Your task to perform on an android device: Clear the cart on newegg. Search for "razer deathadder" on newegg, select the first entry, and add it to the cart. Image 0: 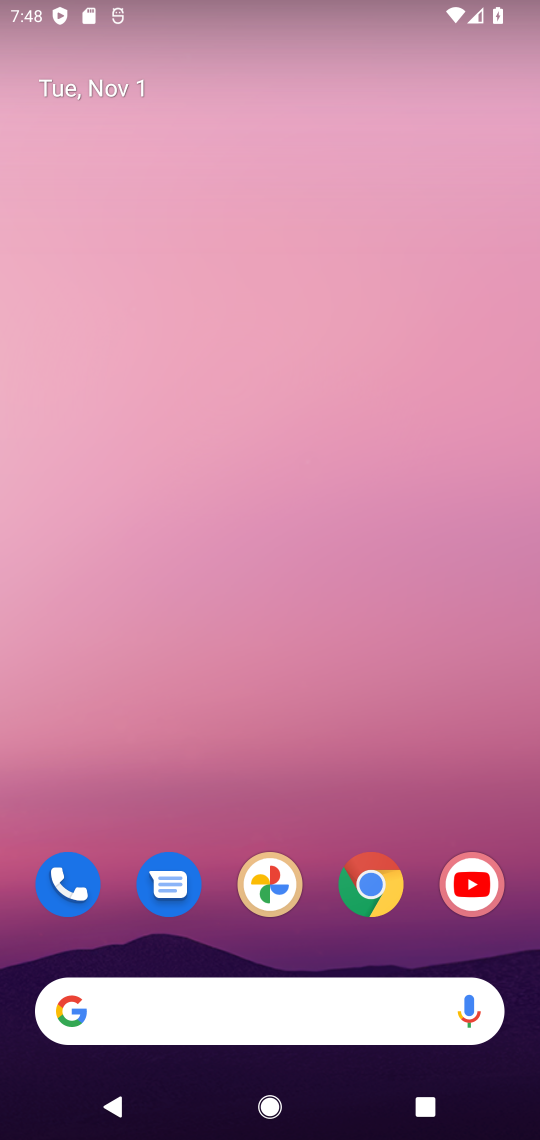
Step 0: click (373, 885)
Your task to perform on an android device: Clear the cart on newegg. Search for "razer deathadder" on newegg, select the first entry, and add it to the cart. Image 1: 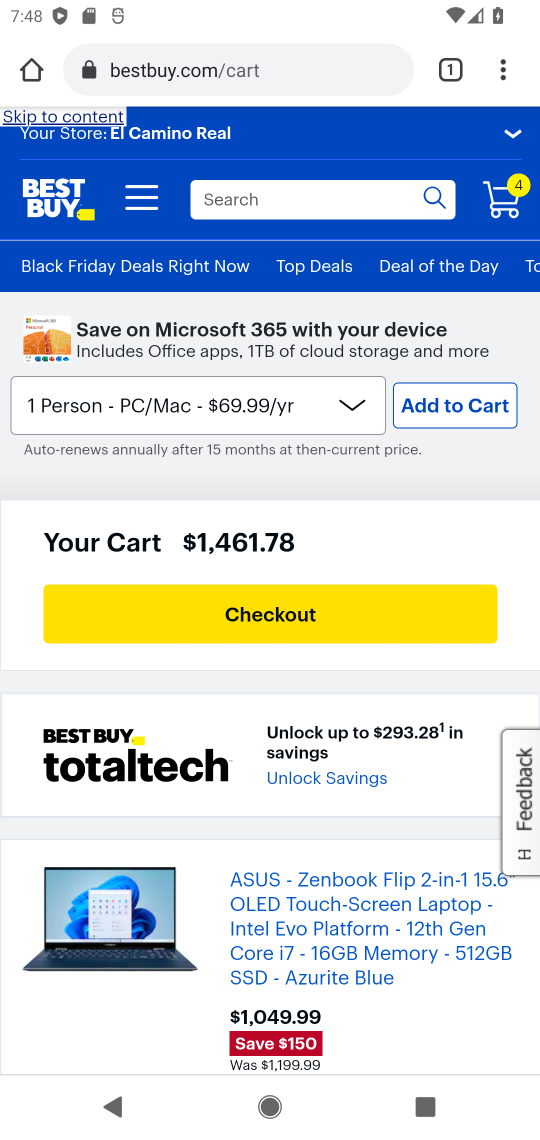
Step 1: click (293, 80)
Your task to perform on an android device: Clear the cart on newegg. Search for "razer deathadder" on newegg, select the first entry, and add it to the cart. Image 2: 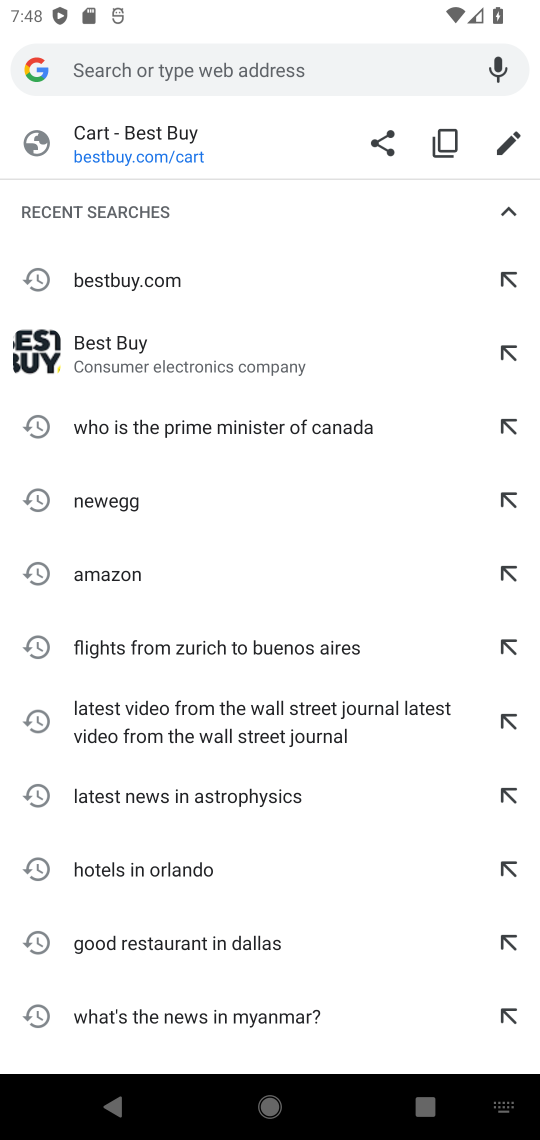
Step 2: type "newegg"
Your task to perform on an android device: Clear the cart on newegg. Search for "razer deathadder" on newegg, select the first entry, and add it to the cart. Image 3: 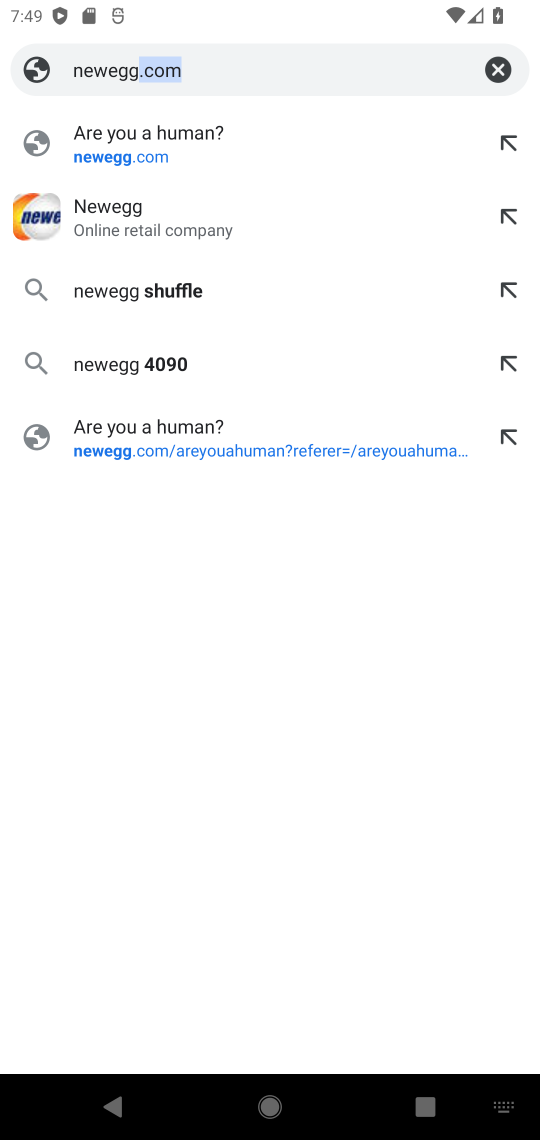
Step 3: click (131, 230)
Your task to perform on an android device: Clear the cart on newegg. Search for "razer deathadder" on newegg, select the first entry, and add it to the cart. Image 4: 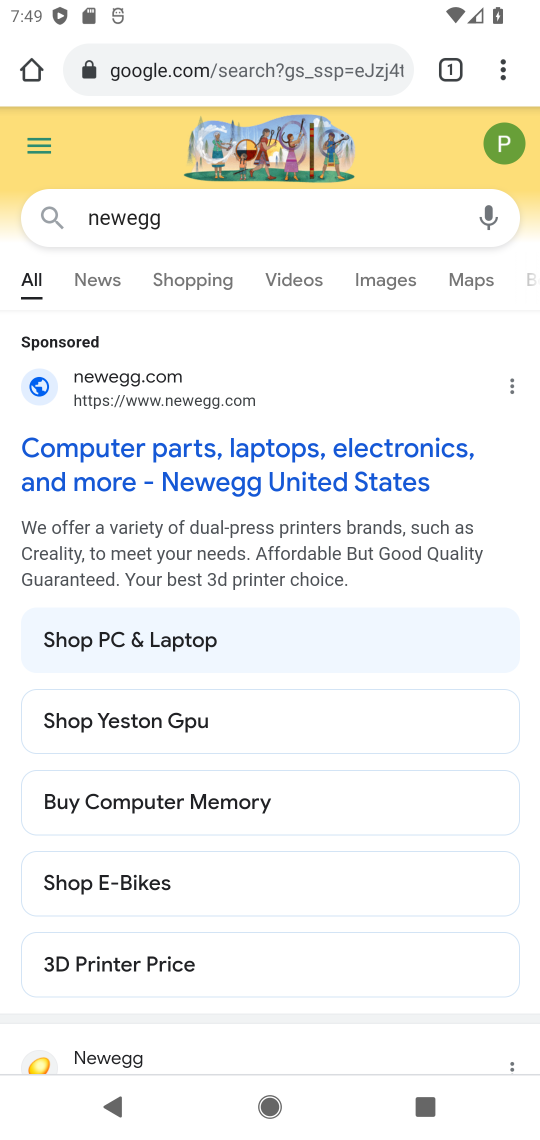
Step 4: drag from (302, 734) to (337, 256)
Your task to perform on an android device: Clear the cart on newegg. Search for "razer deathadder" on newegg, select the first entry, and add it to the cart. Image 5: 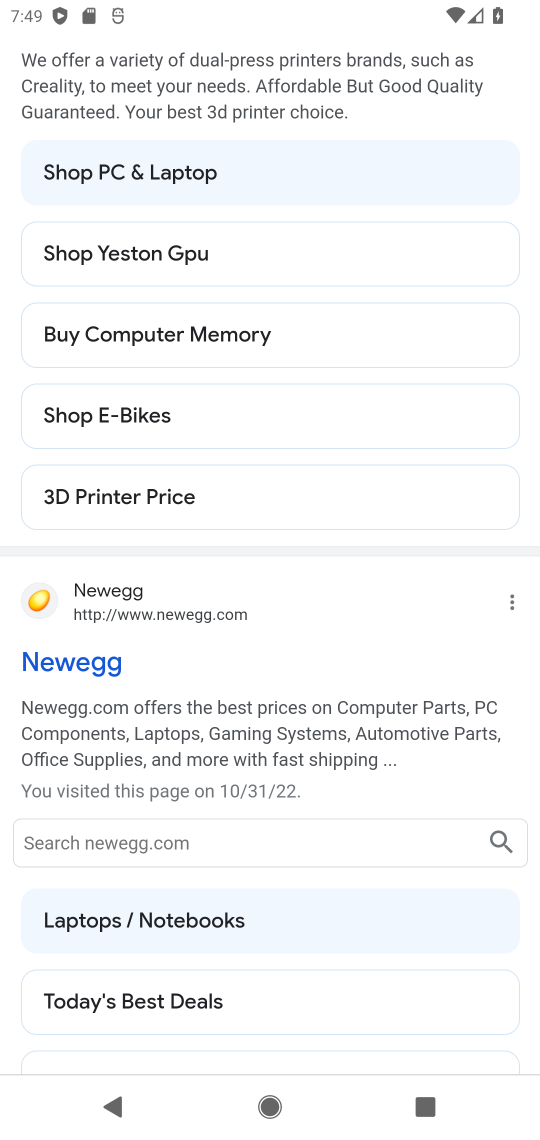
Step 5: click (84, 675)
Your task to perform on an android device: Clear the cart on newegg. Search for "razer deathadder" on newegg, select the first entry, and add it to the cart. Image 6: 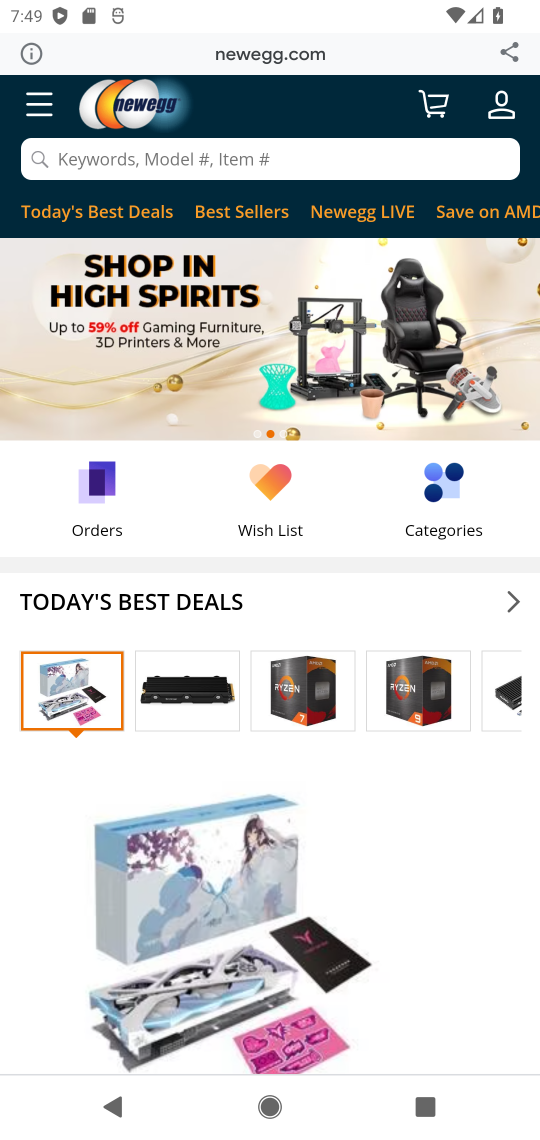
Step 6: click (501, 117)
Your task to perform on an android device: Clear the cart on newegg. Search for "razer deathadder" on newegg, select the first entry, and add it to the cart. Image 7: 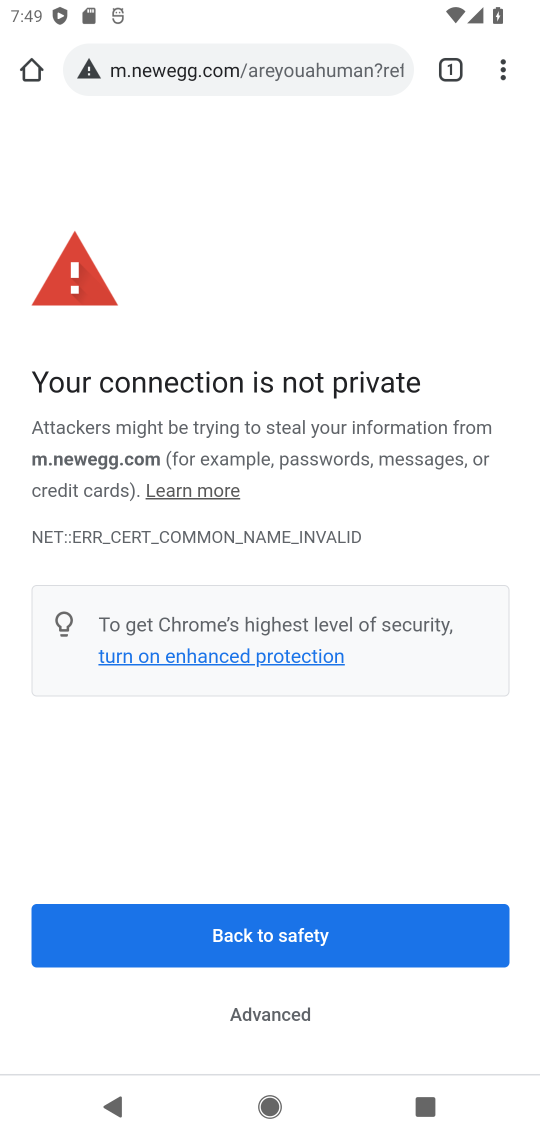
Step 7: click (290, 946)
Your task to perform on an android device: Clear the cart on newegg. Search for "razer deathadder" on newegg, select the first entry, and add it to the cart. Image 8: 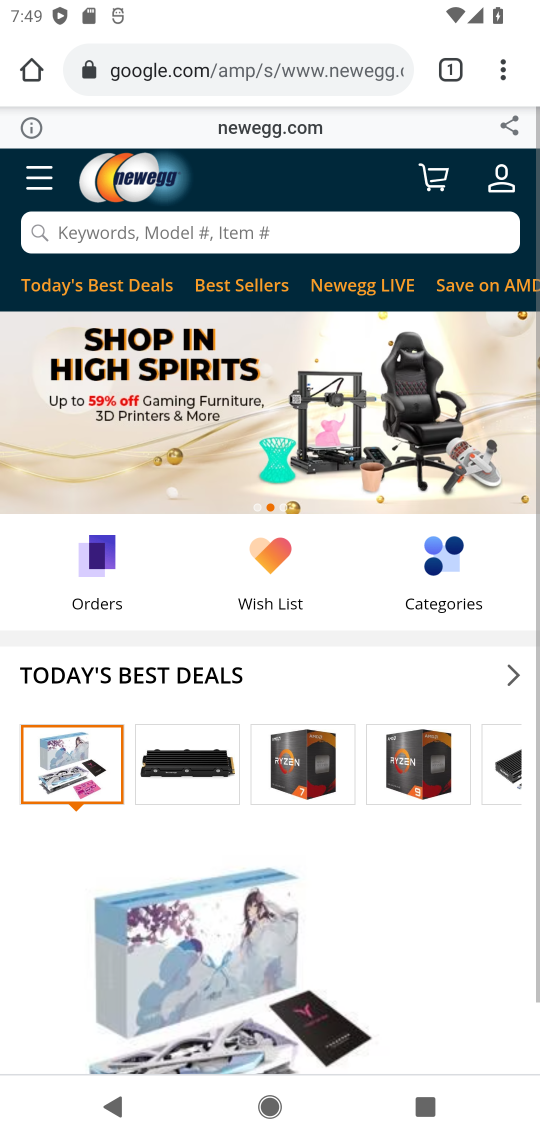
Step 8: click (435, 180)
Your task to perform on an android device: Clear the cart on newegg. Search for "razer deathadder" on newegg, select the first entry, and add it to the cart. Image 9: 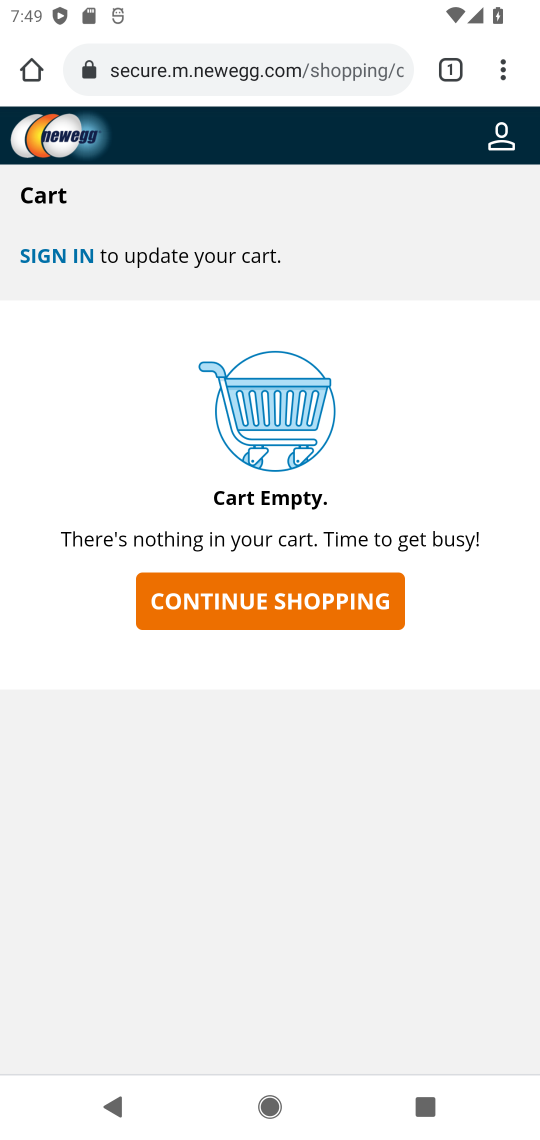
Step 9: click (263, 606)
Your task to perform on an android device: Clear the cart on newegg. Search for "razer deathadder" on newegg, select the first entry, and add it to the cart. Image 10: 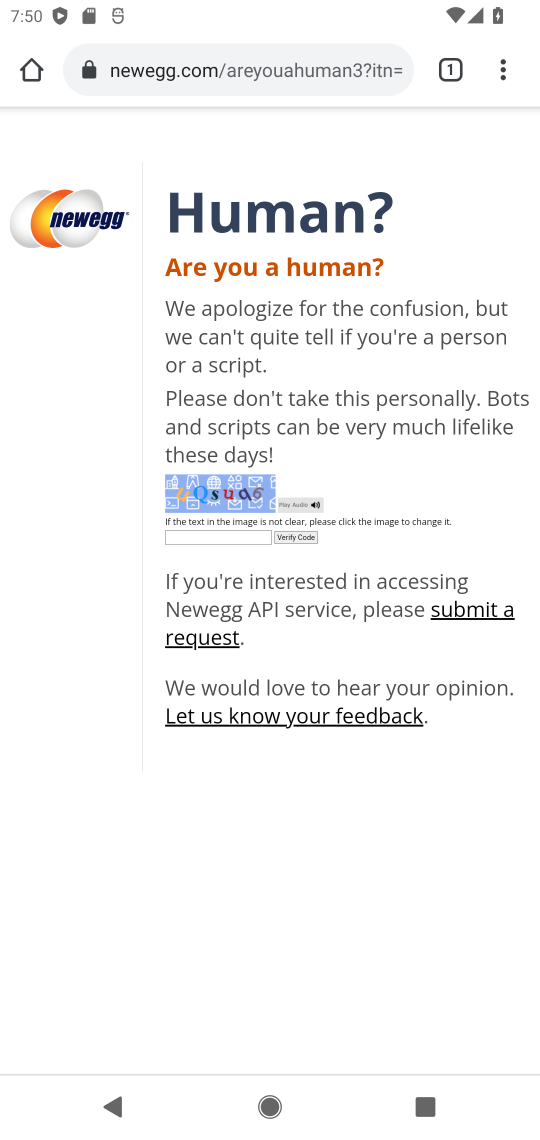
Step 10: press back button
Your task to perform on an android device: Clear the cart on newegg. Search for "razer deathadder" on newegg, select the first entry, and add it to the cart. Image 11: 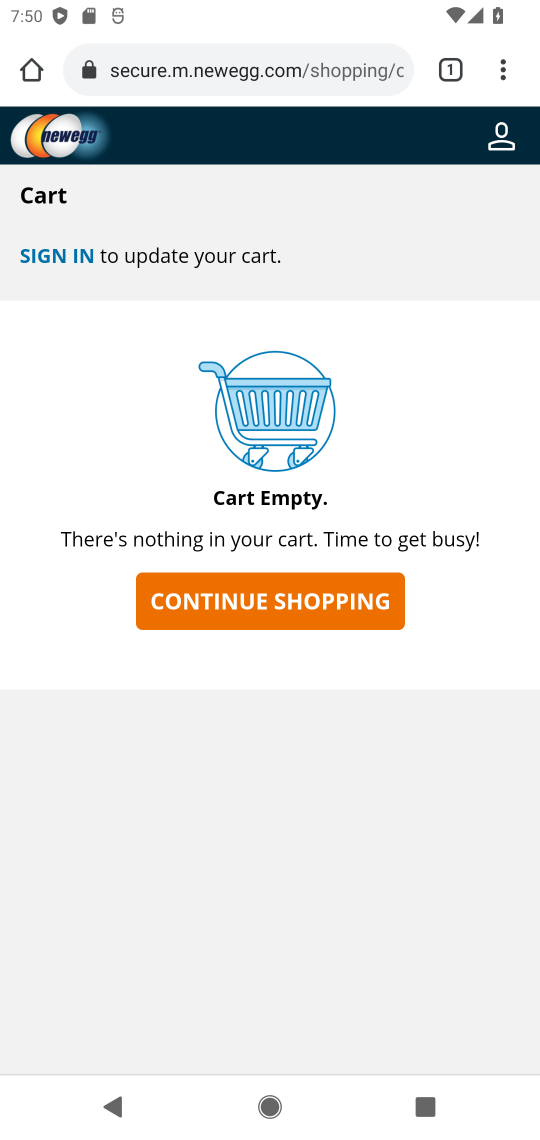
Step 11: press back button
Your task to perform on an android device: Clear the cart on newegg. Search for "razer deathadder" on newegg, select the first entry, and add it to the cart. Image 12: 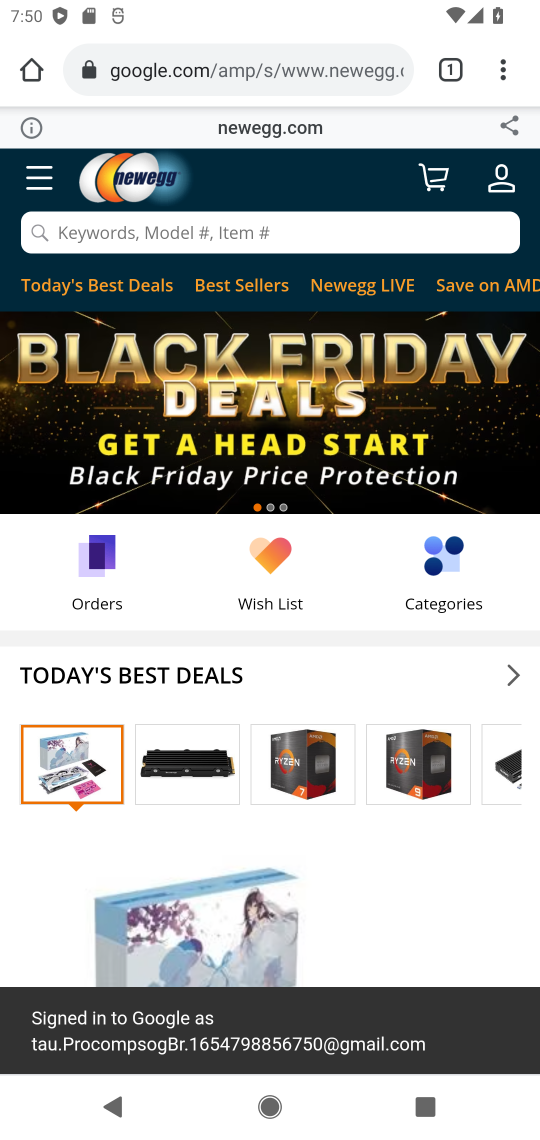
Step 12: click (212, 235)
Your task to perform on an android device: Clear the cart on newegg. Search for "razer deathadder" on newegg, select the first entry, and add it to the cart. Image 13: 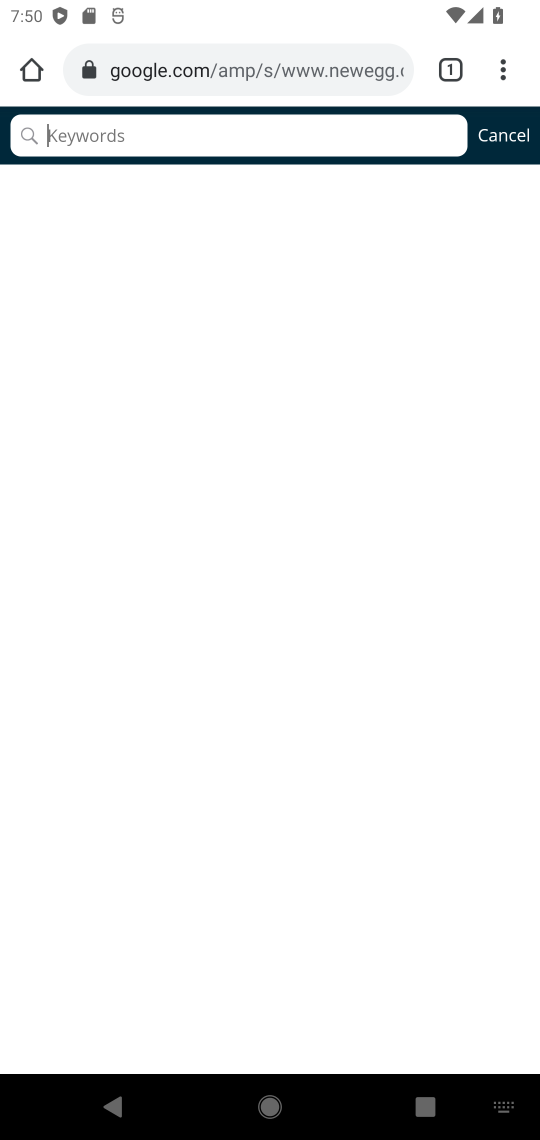
Step 13: type "razer  deathadder"
Your task to perform on an android device: Clear the cart on newegg. Search for "razer deathadder" on newegg, select the first entry, and add it to the cart. Image 14: 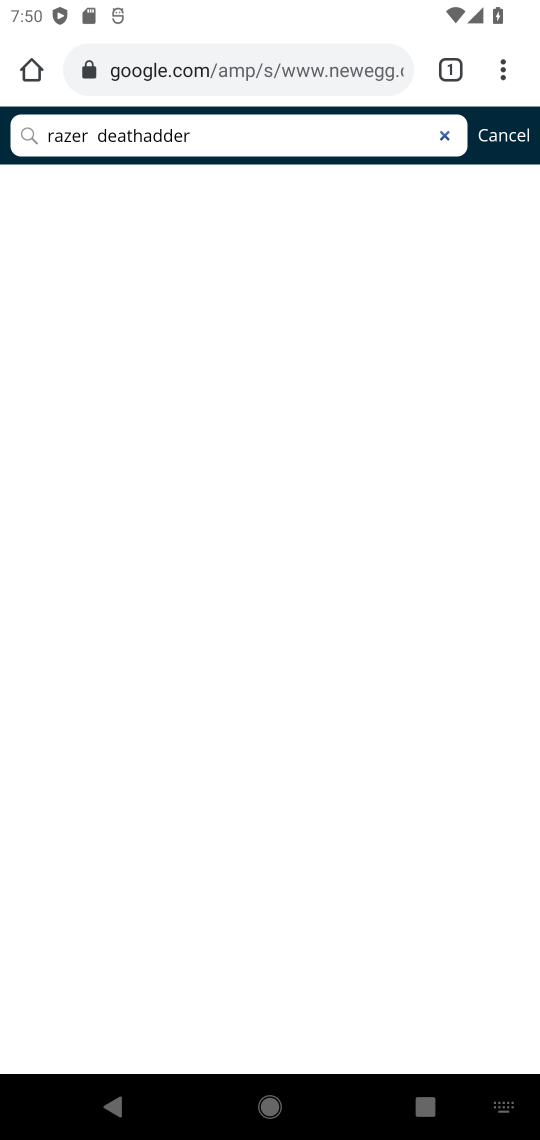
Step 14: click (25, 134)
Your task to perform on an android device: Clear the cart on newegg. Search for "razer deathadder" on newegg, select the first entry, and add it to the cart. Image 15: 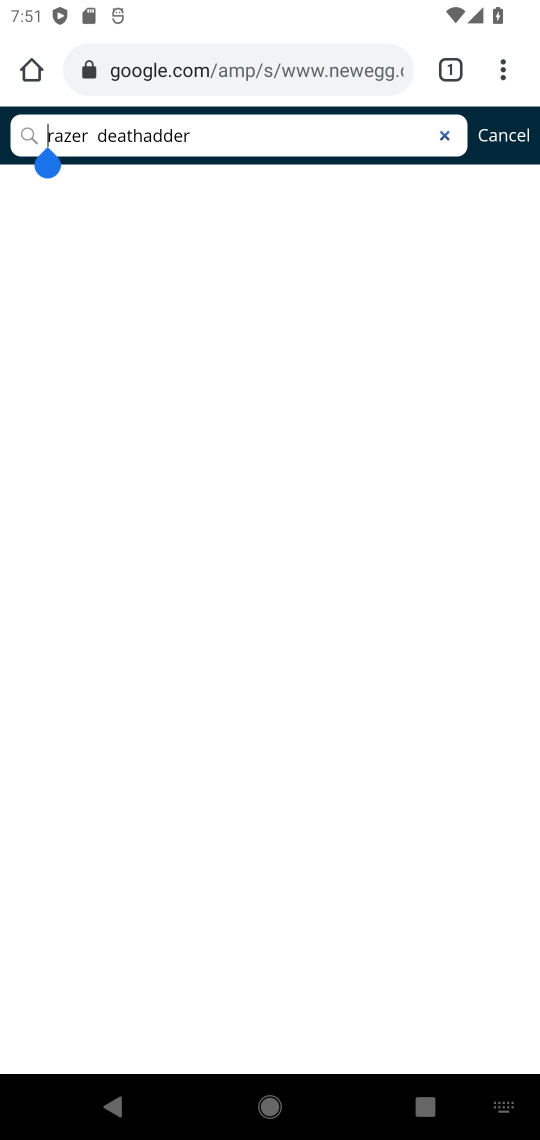
Step 15: click (25, 134)
Your task to perform on an android device: Clear the cart on newegg. Search for "razer deathadder" on newegg, select the first entry, and add it to the cart. Image 16: 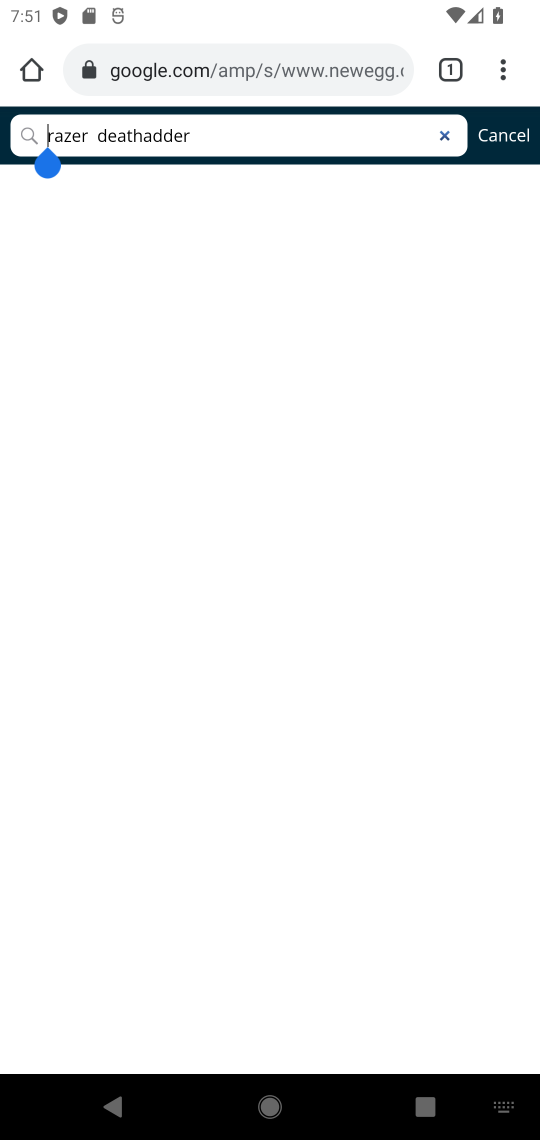
Step 16: task complete